Your task to perform on an android device: Clear all items from cart on costco.com. Search for "asus rog" on costco.com, select the first entry, add it to the cart, then select checkout. Image 0: 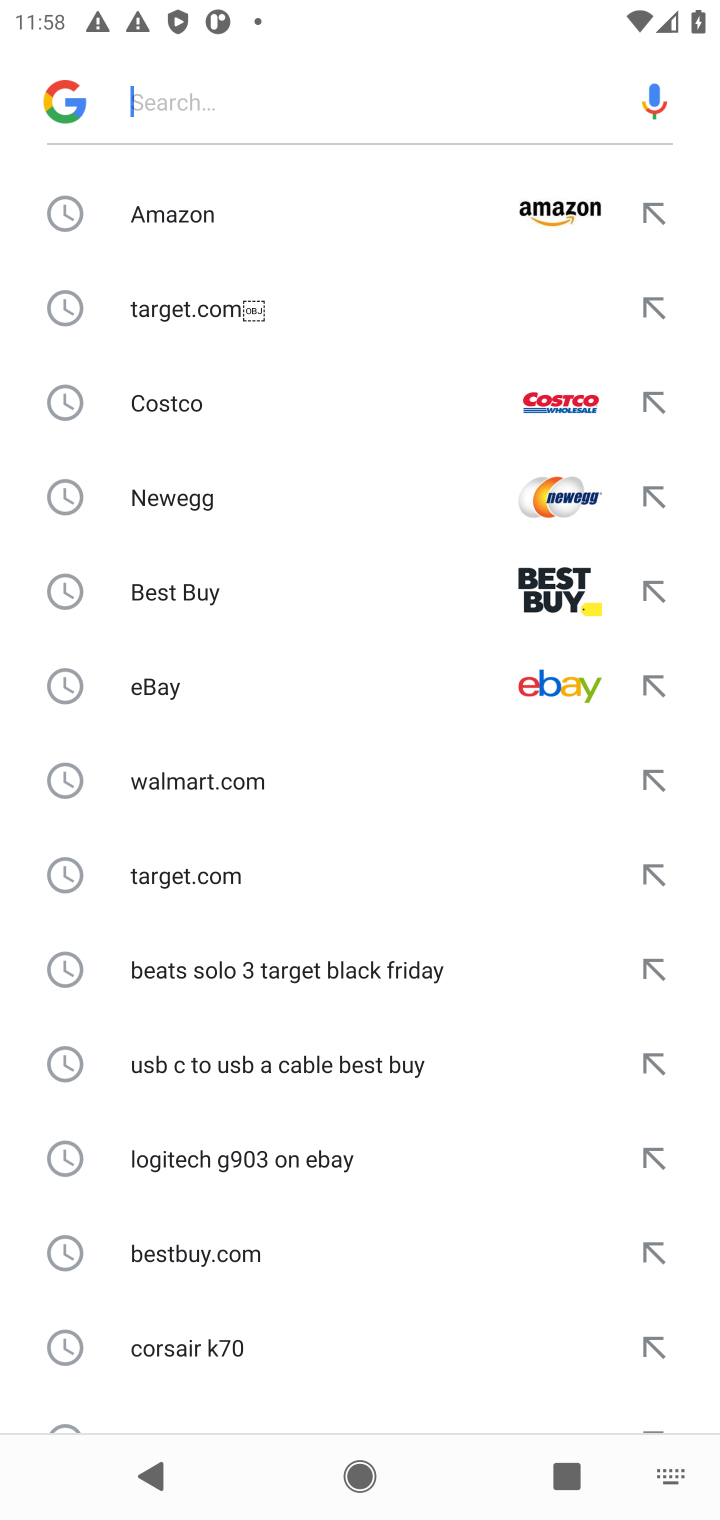
Step 0: press home button
Your task to perform on an android device: Clear all items from cart on costco.com. Search for "asus rog" on costco.com, select the first entry, add it to the cart, then select checkout. Image 1: 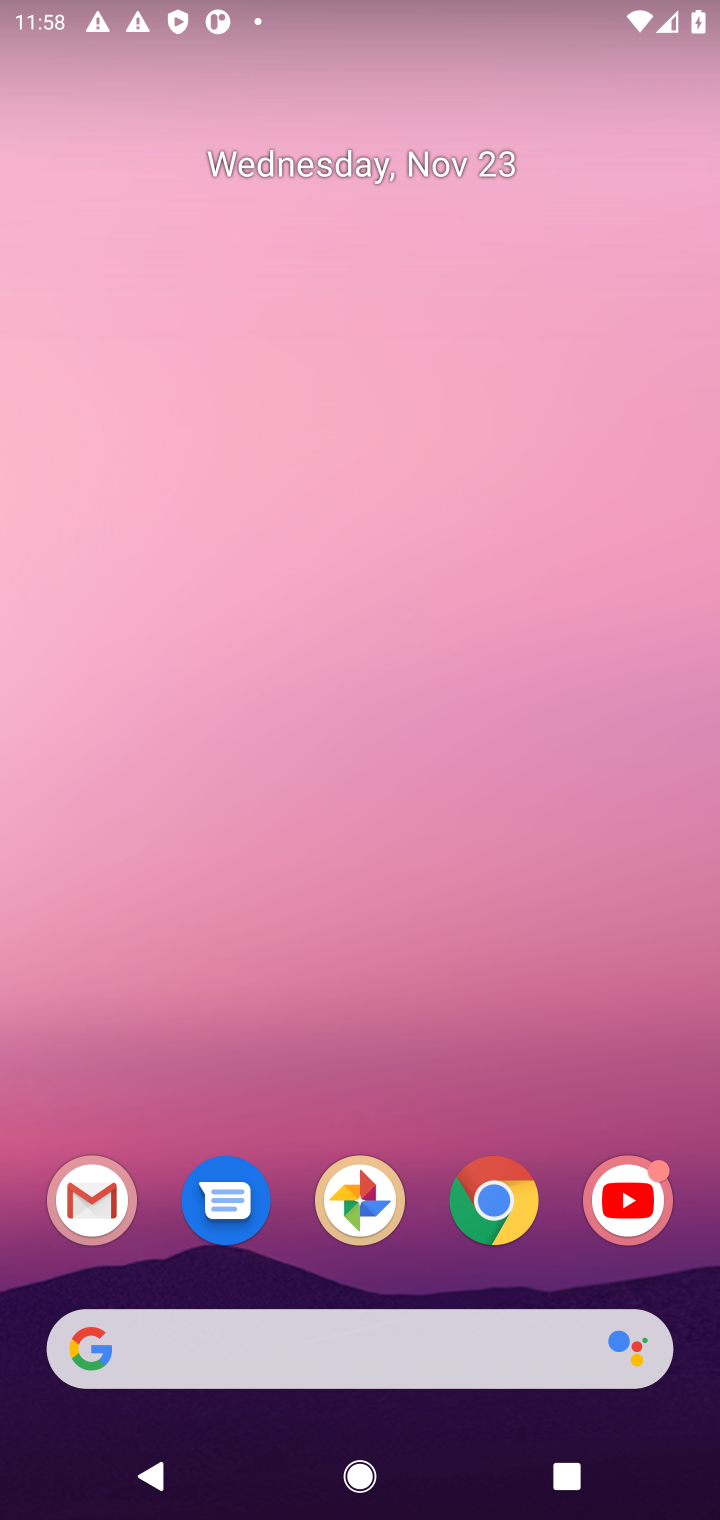
Step 1: click (394, 1363)
Your task to perform on an android device: Clear all items from cart on costco.com. Search for "asus rog" on costco.com, select the first entry, add it to the cart, then select checkout. Image 2: 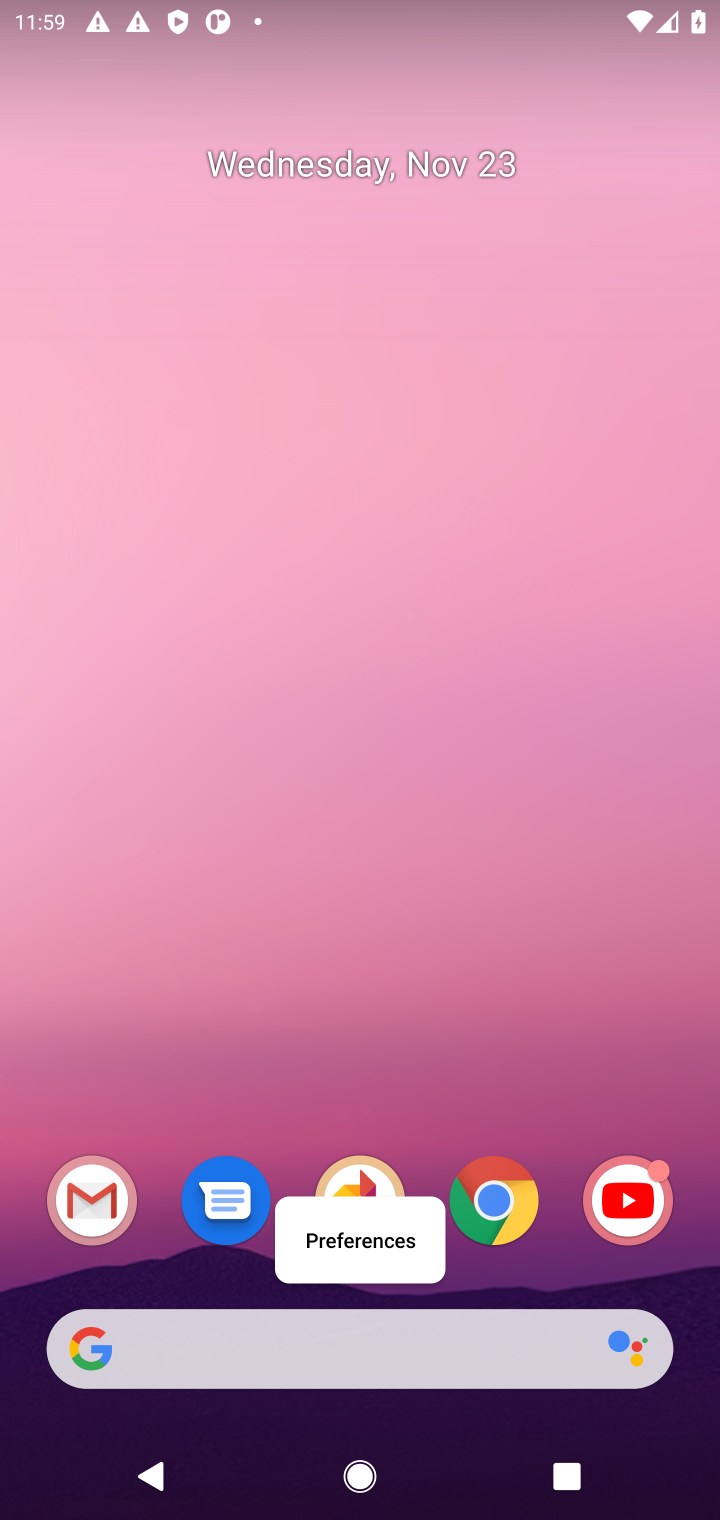
Step 2: type "costco.com"
Your task to perform on an android device: Clear all items from cart on costco.com. Search for "asus rog" on costco.com, select the first entry, add it to the cart, then select checkout. Image 3: 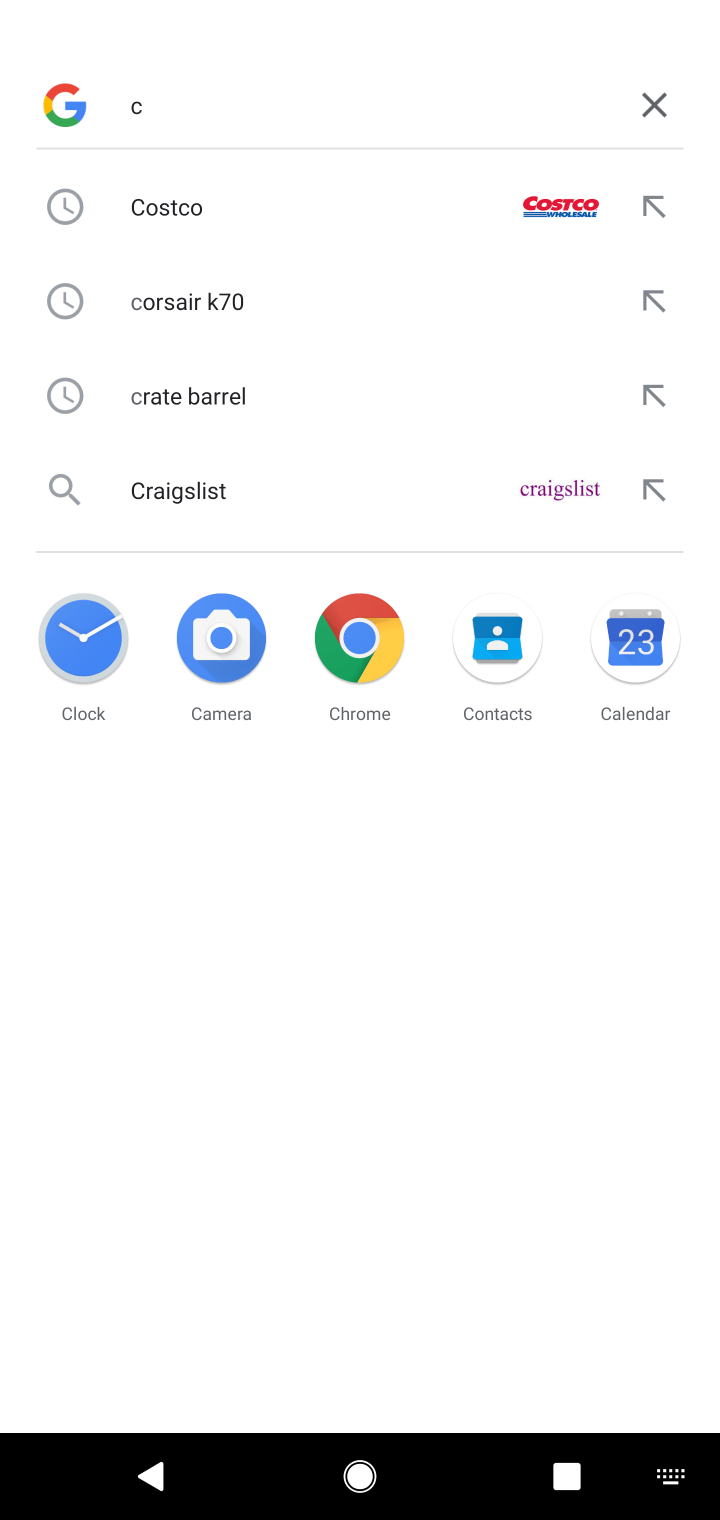
Step 3: click (239, 213)
Your task to perform on an android device: Clear all items from cart on costco.com. Search for "asus rog" on costco.com, select the first entry, add it to the cart, then select checkout. Image 4: 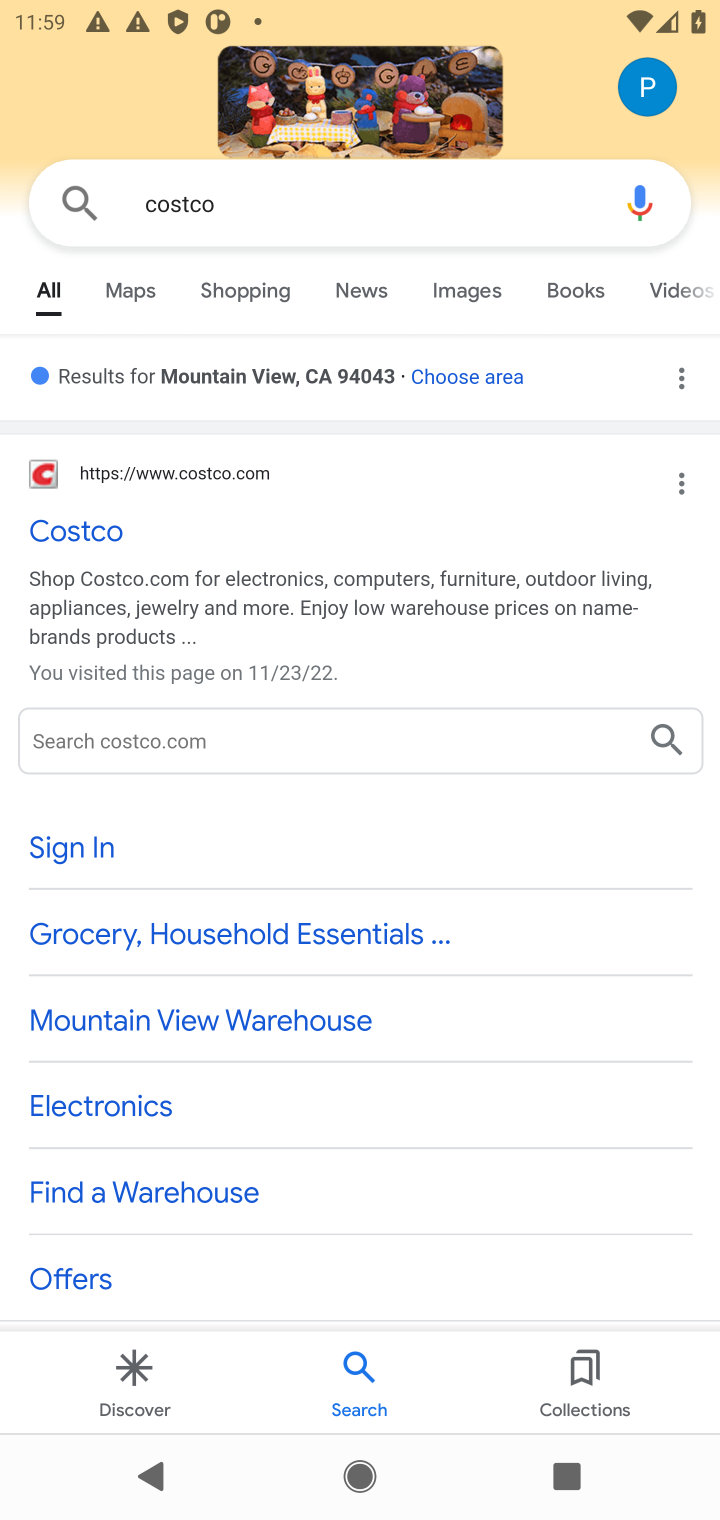
Step 4: click (107, 561)
Your task to perform on an android device: Clear all items from cart on costco.com. Search for "asus rog" on costco.com, select the first entry, add it to the cart, then select checkout. Image 5: 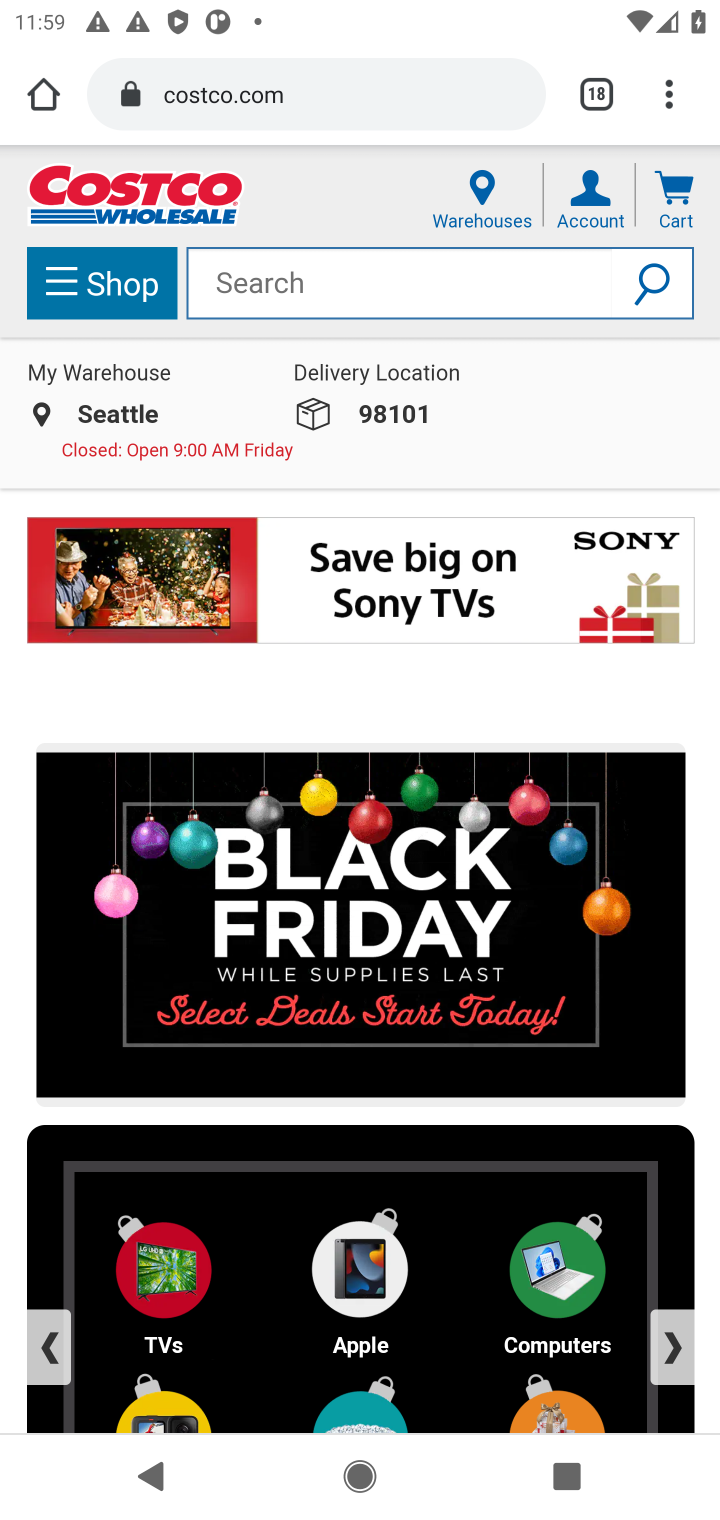
Step 5: drag from (311, 1089) to (324, 219)
Your task to perform on an android device: Clear all items from cart on costco.com. Search for "asus rog" on costco.com, select the first entry, add it to the cart, then select checkout. Image 6: 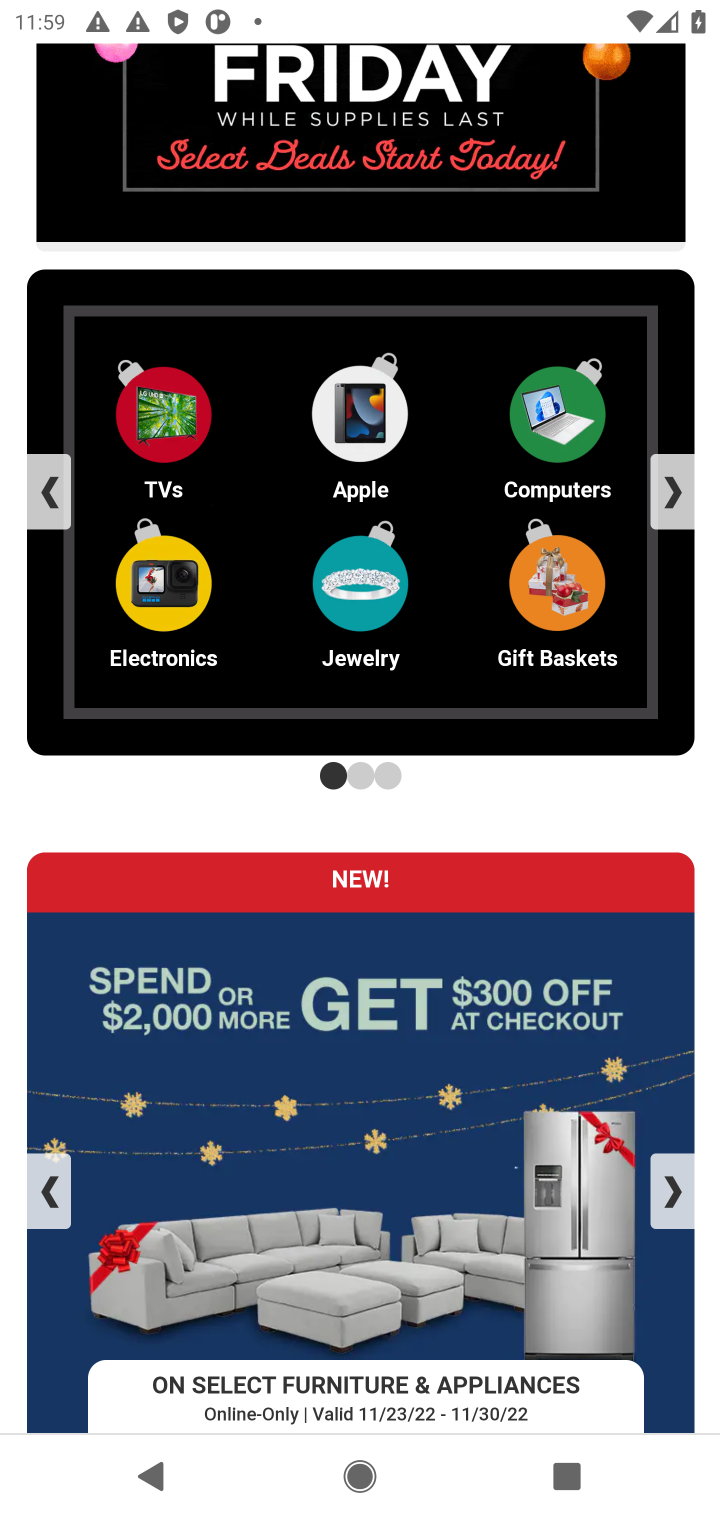
Step 6: drag from (481, 1228) to (509, 564)
Your task to perform on an android device: Clear all items from cart on costco.com. Search for "asus rog" on costco.com, select the first entry, add it to the cart, then select checkout. Image 7: 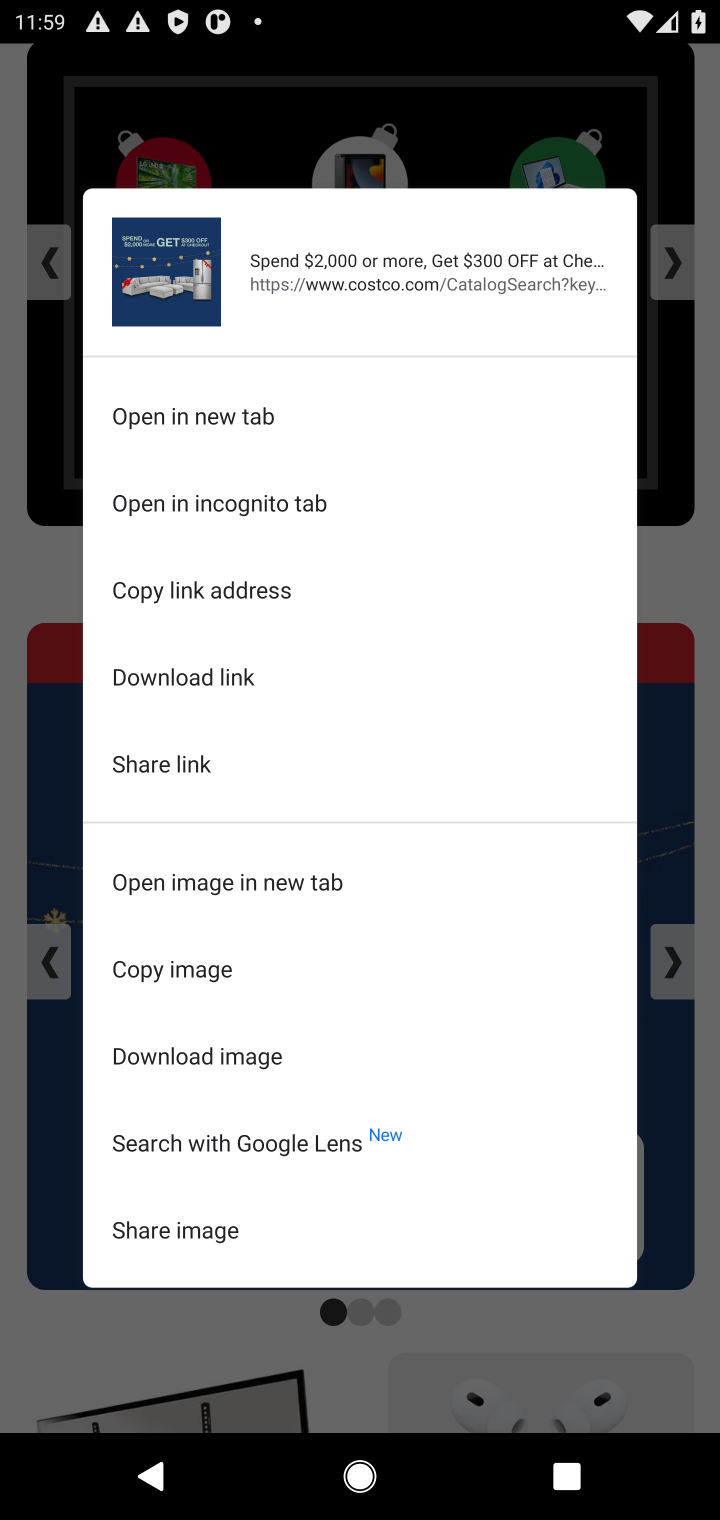
Step 7: click (475, 1360)
Your task to perform on an android device: Clear all items from cart on costco.com. Search for "asus rog" on costco.com, select the first entry, add it to the cart, then select checkout. Image 8: 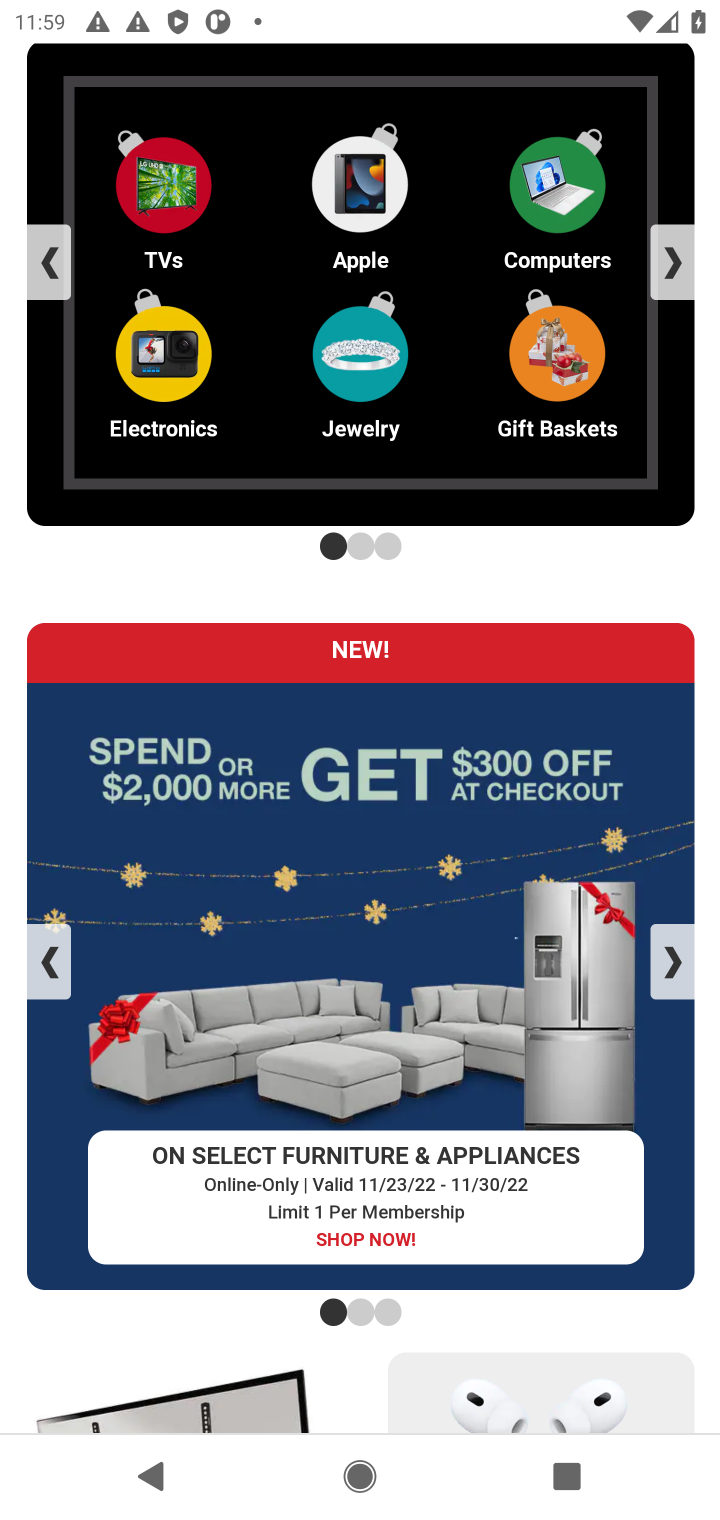
Step 8: drag from (507, 632) to (496, 1311)
Your task to perform on an android device: Clear all items from cart on costco.com. Search for "asus rog" on costco.com, select the first entry, add it to the cart, then select checkout. Image 9: 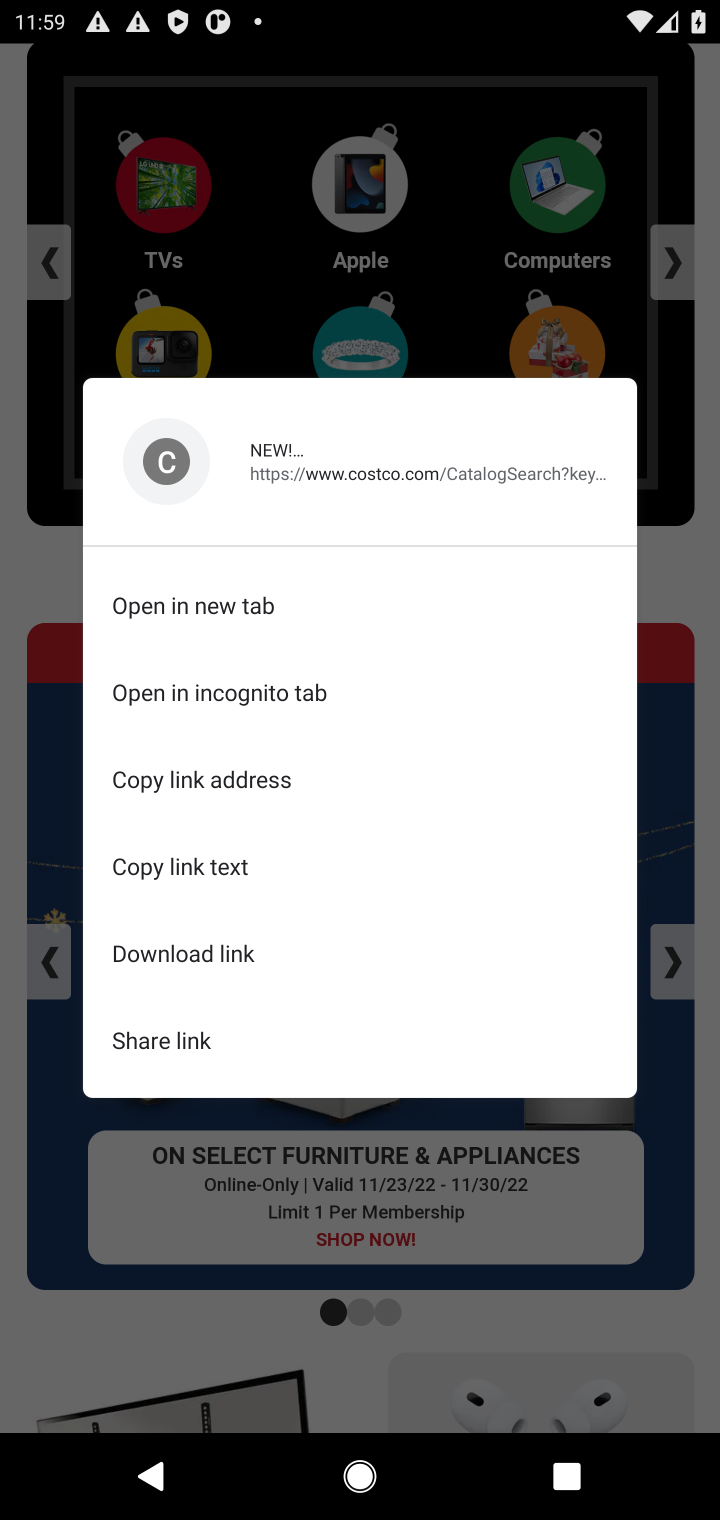
Step 9: click (673, 688)
Your task to perform on an android device: Clear all items from cart on costco.com. Search for "asus rog" on costco.com, select the first entry, add it to the cart, then select checkout. Image 10: 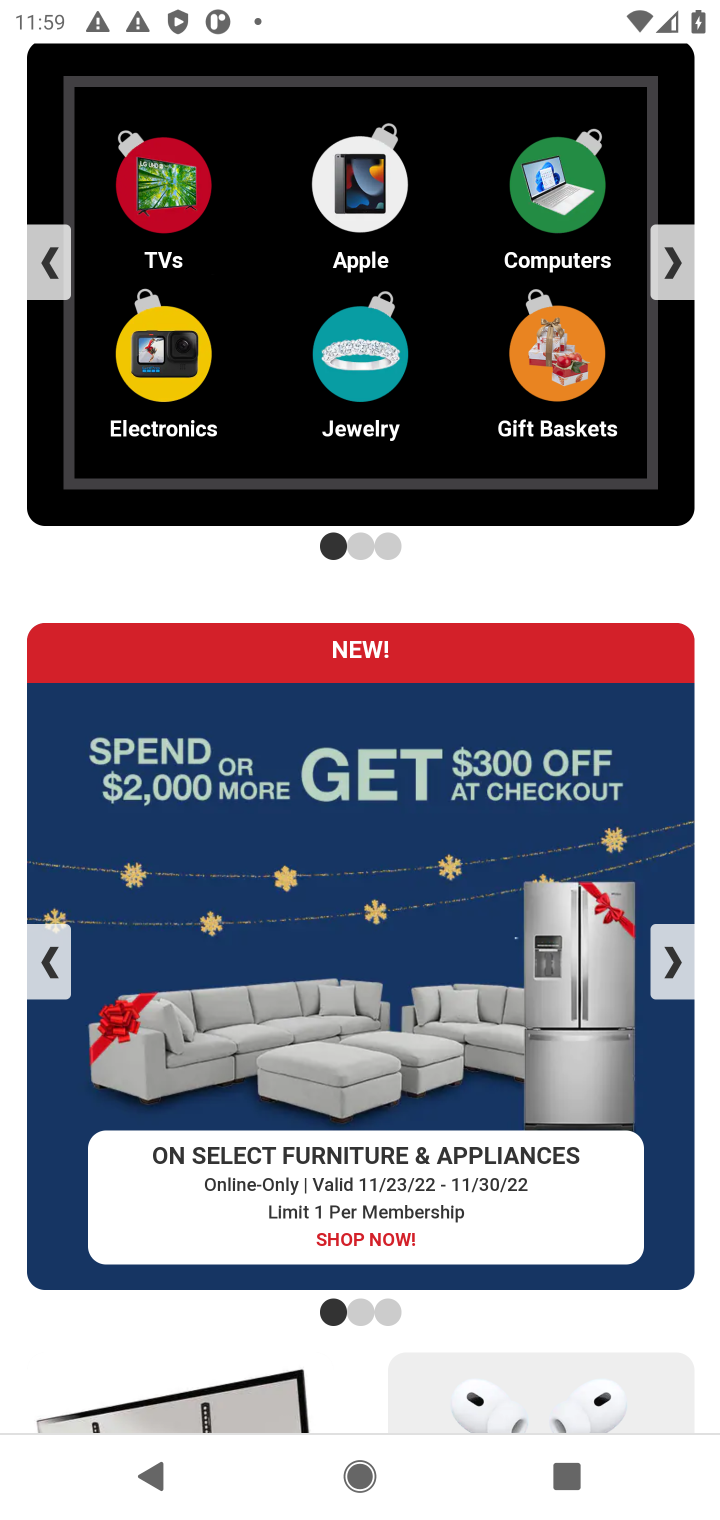
Step 10: drag from (556, 521) to (301, 1331)
Your task to perform on an android device: Clear all items from cart on costco.com. Search for "asus rog" on costco.com, select the first entry, add it to the cart, then select checkout. Image 11: 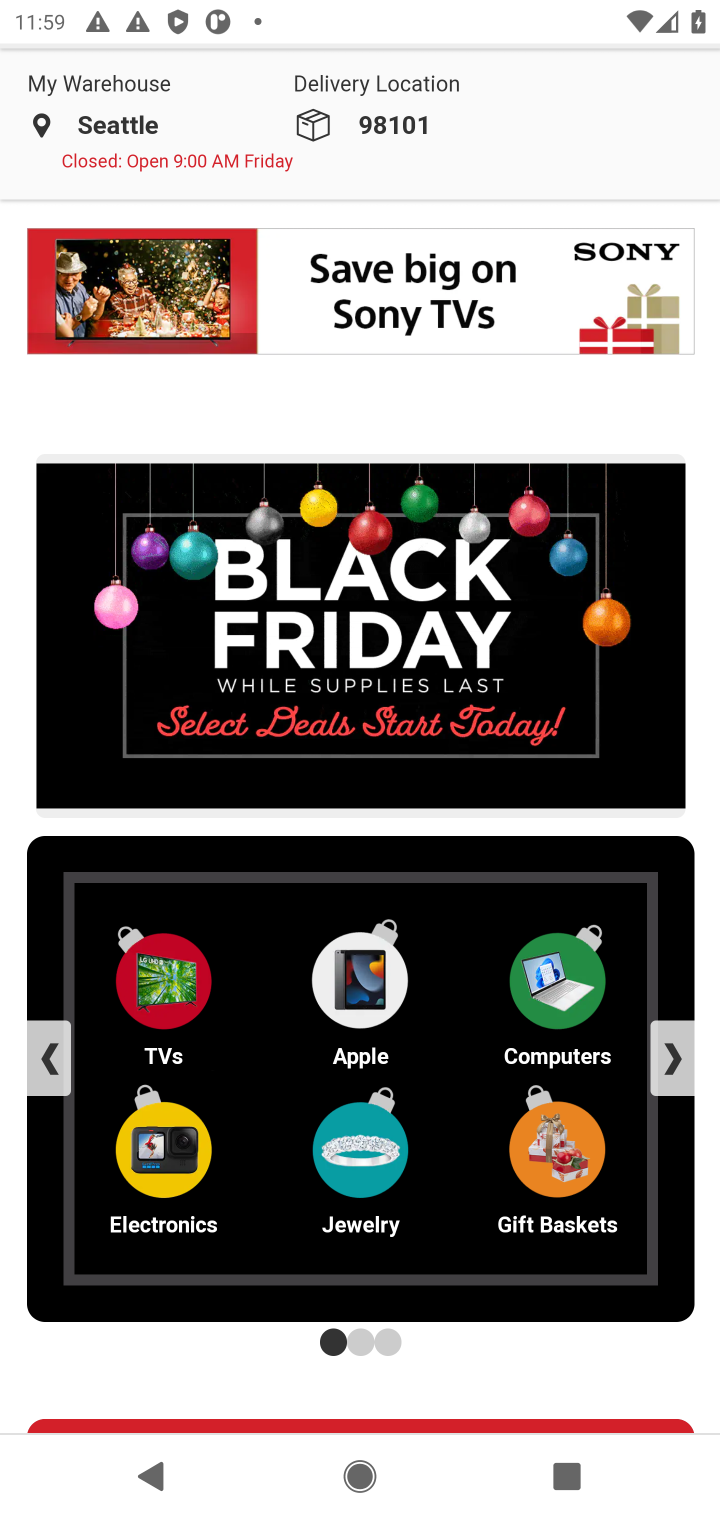
Step 11: drag from (426, 359) to (476, 1345)
Your task to perform on an android device: Clear all items from cart on costco.com. Search for "asus rog" on costco.com, select the first entry, add it to the cart, then select checkout. Image 12: 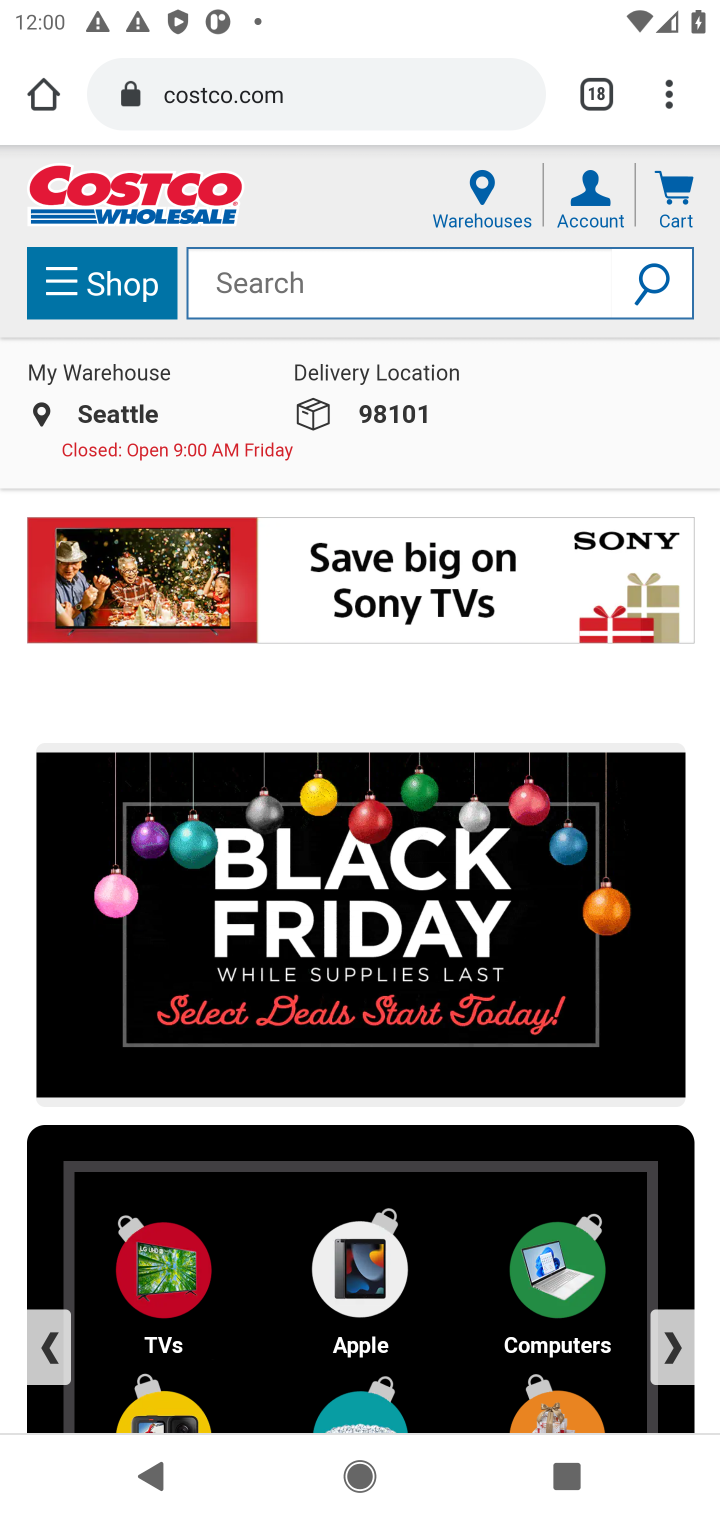
Step 12: click (333, 273)
Your task to perform on an android device: Clear all items from cart on costco.com. Search for "asus rog" on costco.com, select the first entry, add it to the cart, then select checkout. Image 13: 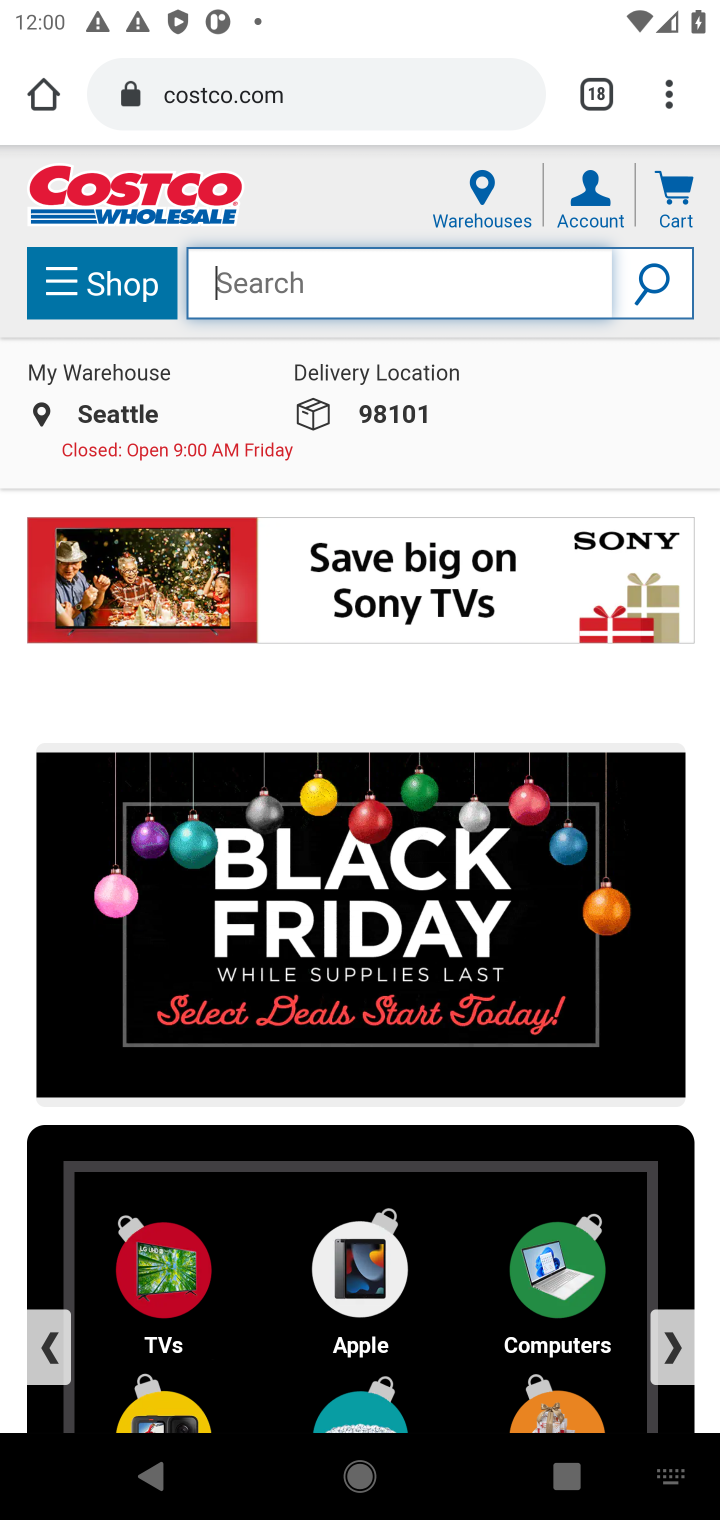
Step 13: type "asus rog"
Your task to perform on an android device: Clear all items from cart on costco.com. Search for "asus rog" on costco.com, select the first entry, add it to the cart, then select checkout. Image 14: 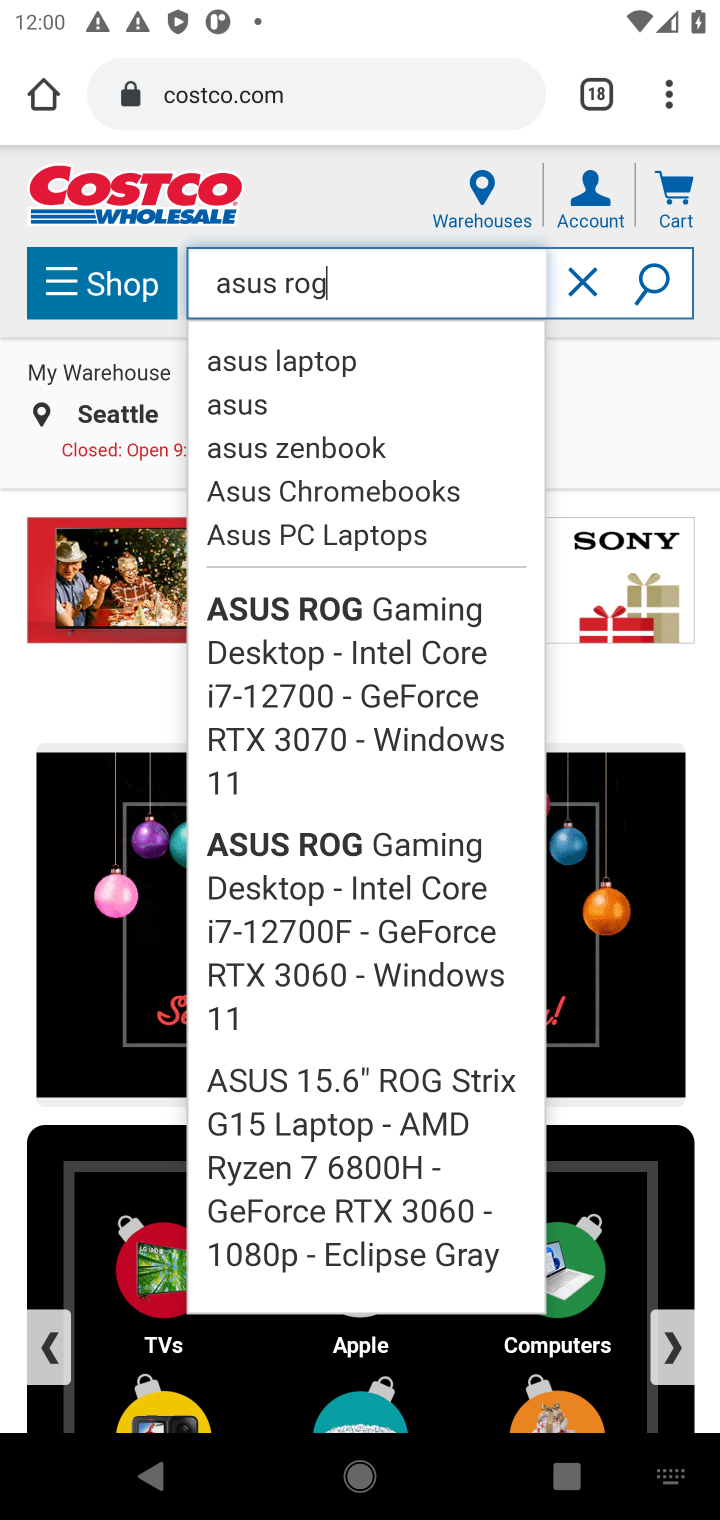
Step 14: click (641, 296)
Your task to perform on an android device: Clear all items from cart on costco.com. Search for "asus rog" on costco.com, select the first entry, add it to the cart, then select checkout. Image 15: 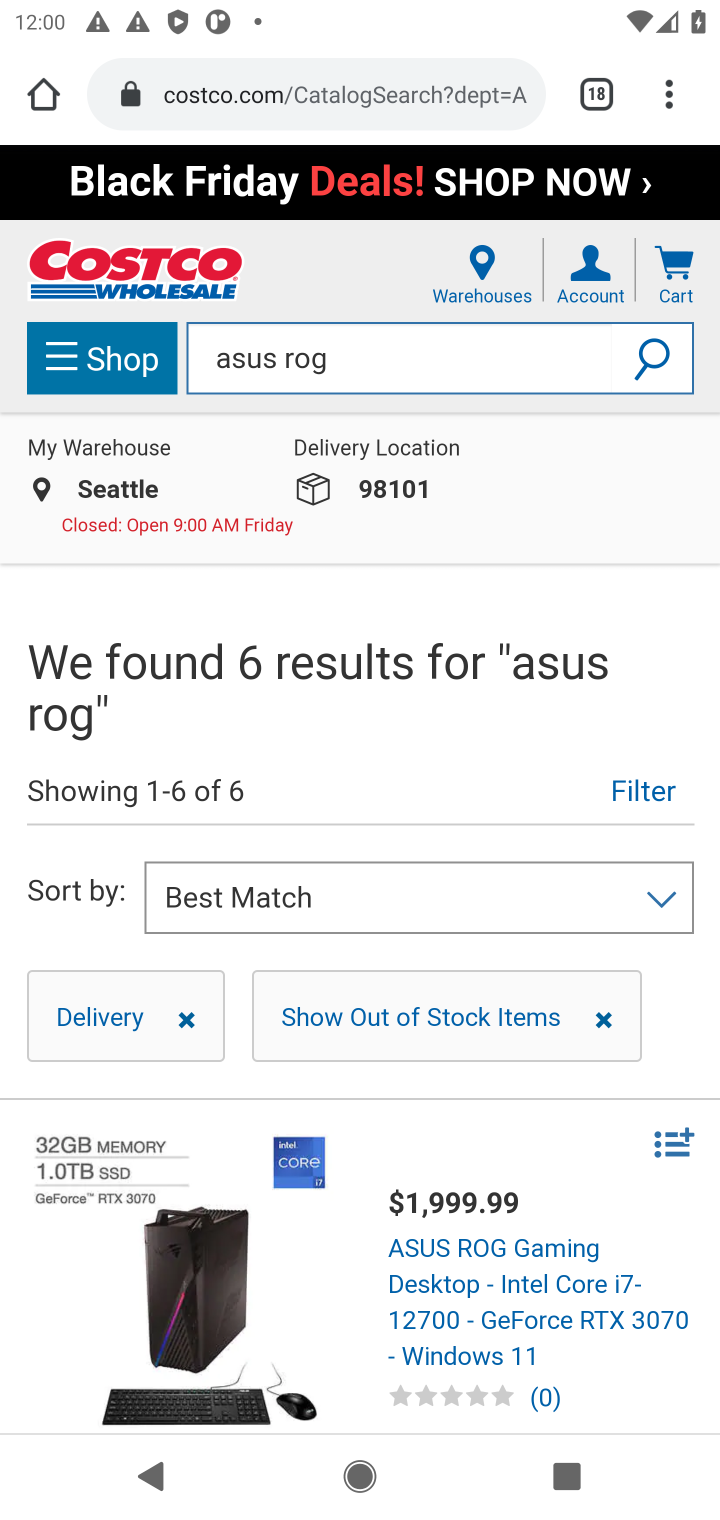
Step 15: click (491, 1234)
Your task to perform on an android device: Clear all items from cart on costco.com. Search for "asus rog" on costco.com, select the first entry, add it to the cart, then select checkout. Image 16: 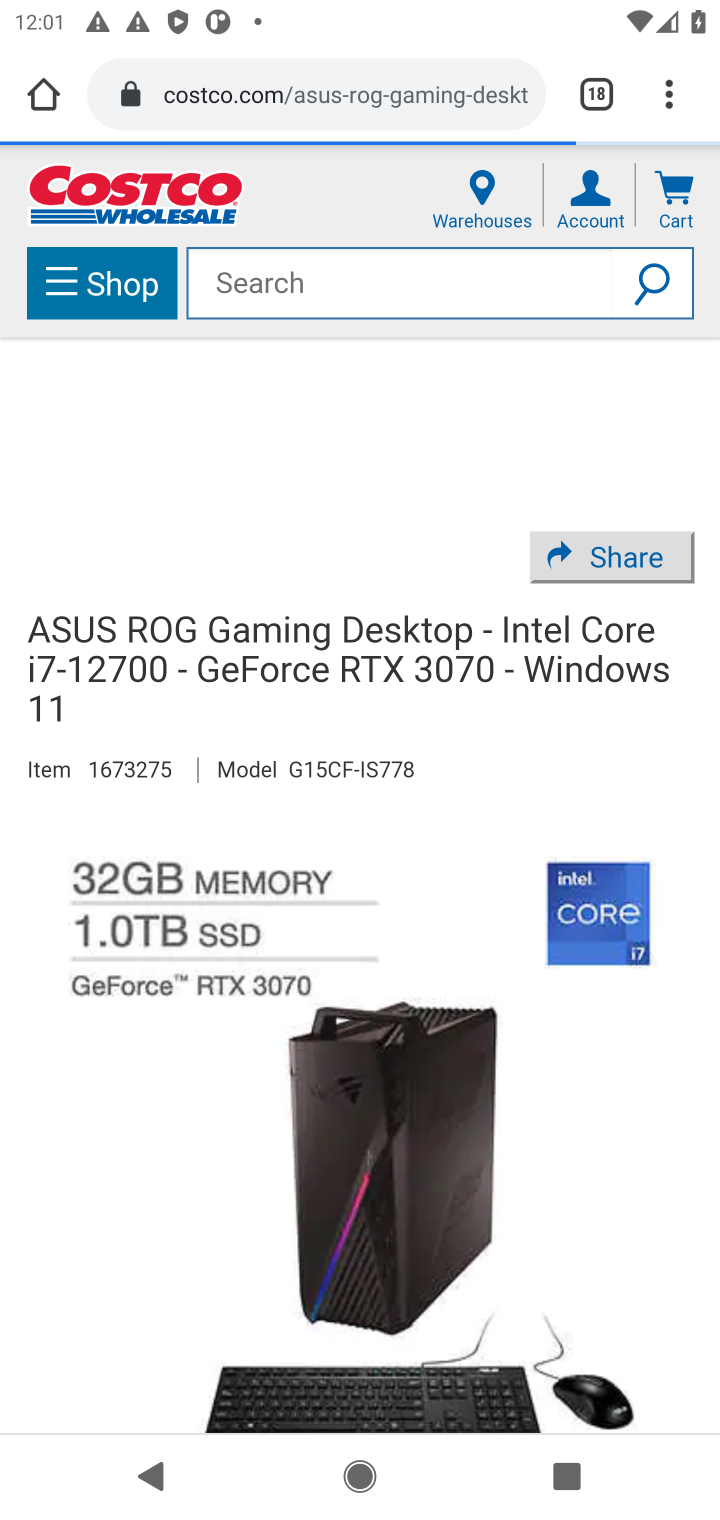
Step 16: drag from (491, 1234) to (320, 510)
Your task to perform on an android device: Clear all items from cart on costco.com. Search for "asus rog" on costco.com, select the first entry, add it to the cart, then select checkout. Image 17: 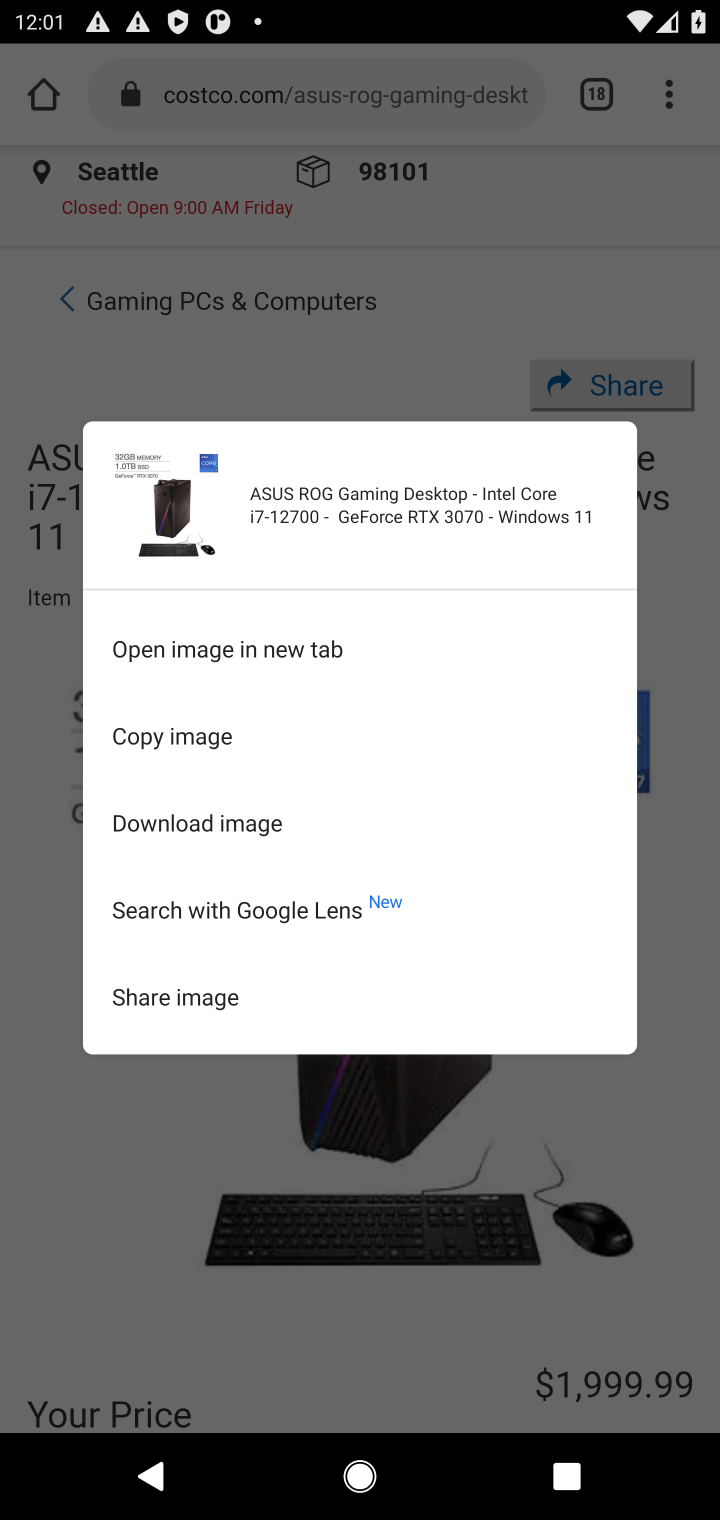
Step 17: click (262, 1125)
Your task to perform on an android device: Clear all items from cart on costco.com. Search for "asus rog" on costco.com, select the first entry, add it to the cart, then select checkout. Image 18: 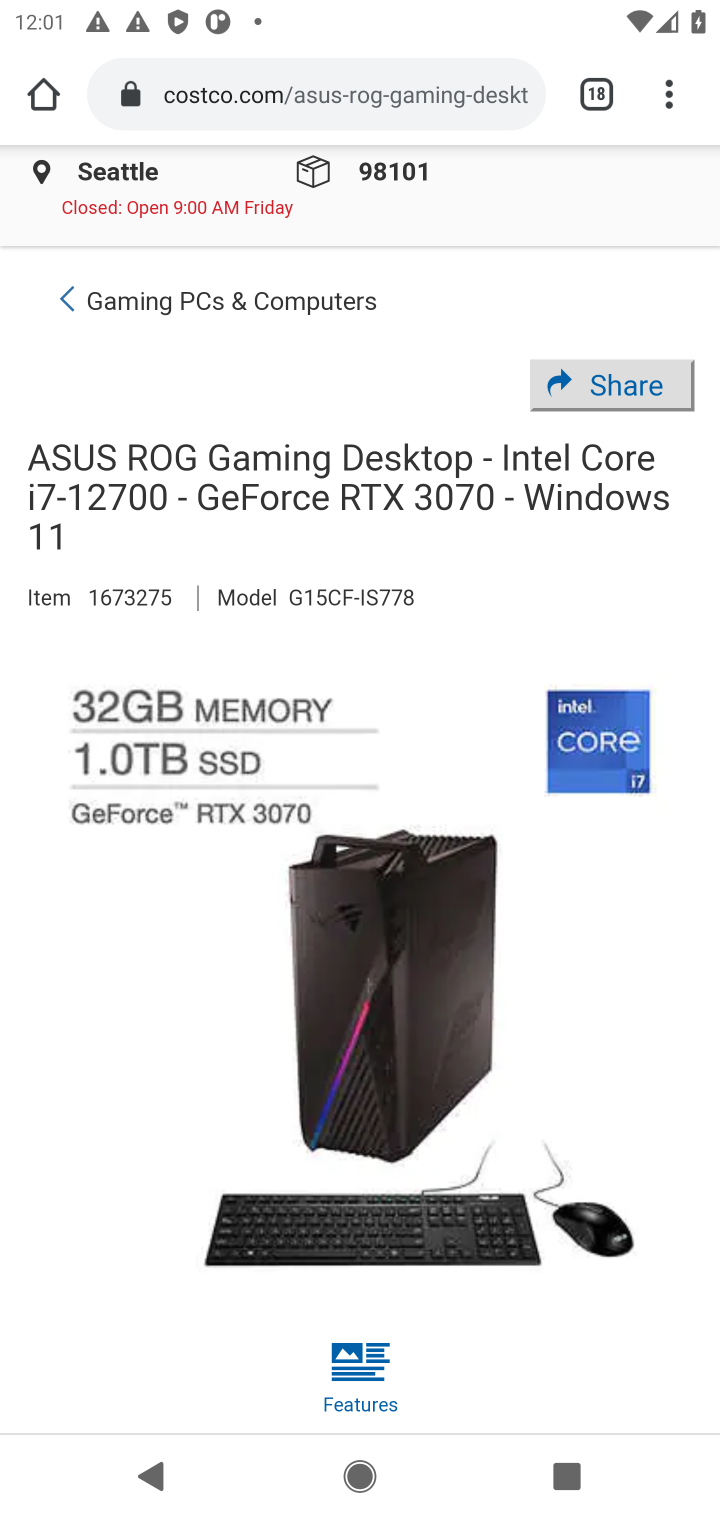
Step 18: drag from (164, 1197) to (148, 608)
Your task to perform on an android device: Clear all items from cart on costco.com. Search for "asus rog" on costco.com, select the first entry, add it to the cart, then select checkout. Image 19: 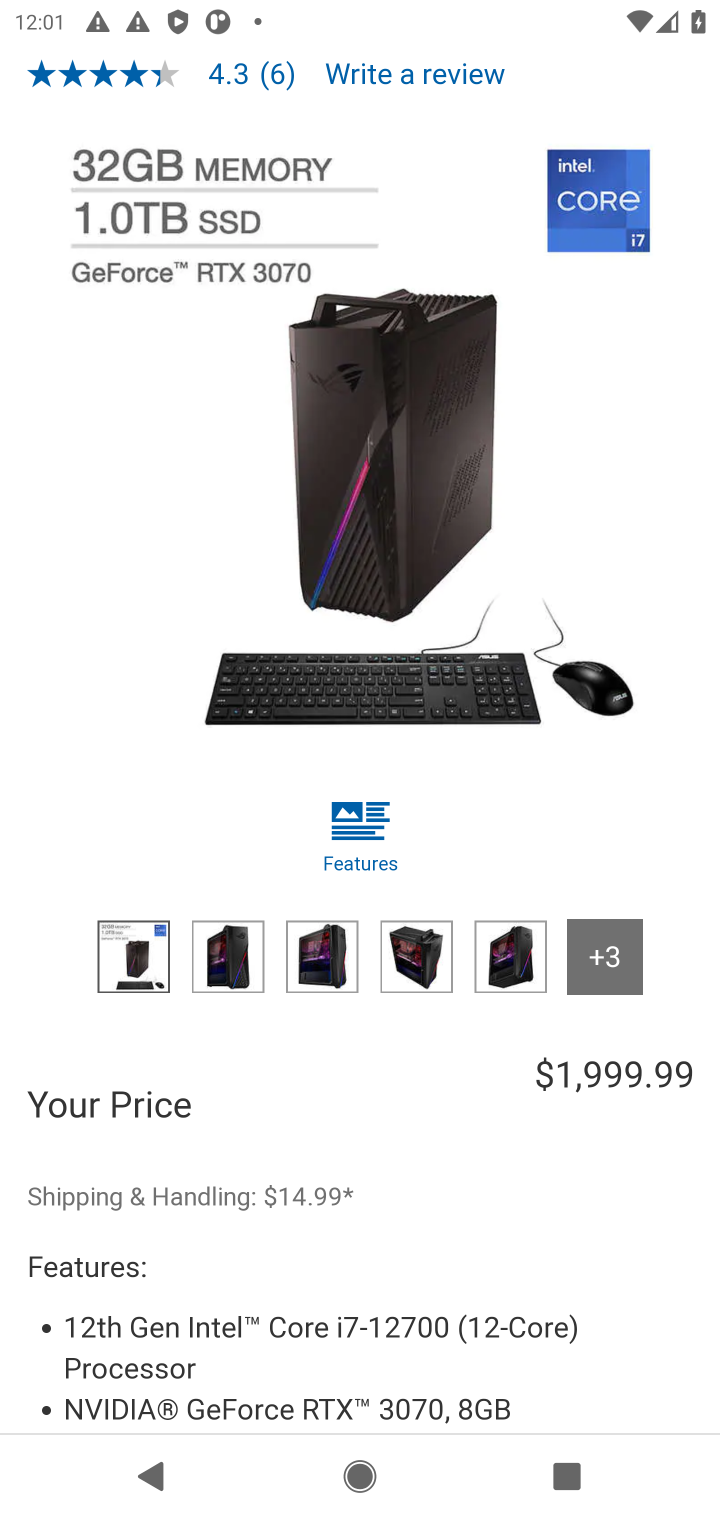
Step 19: drag from (384, 1222) to (442, 405)
Your task to perform on an android device: Clear all items from cart on costco.com. Search for "asus rog" on costco.com, select the first entry, add it to the cart, then select checkout. Image 20: 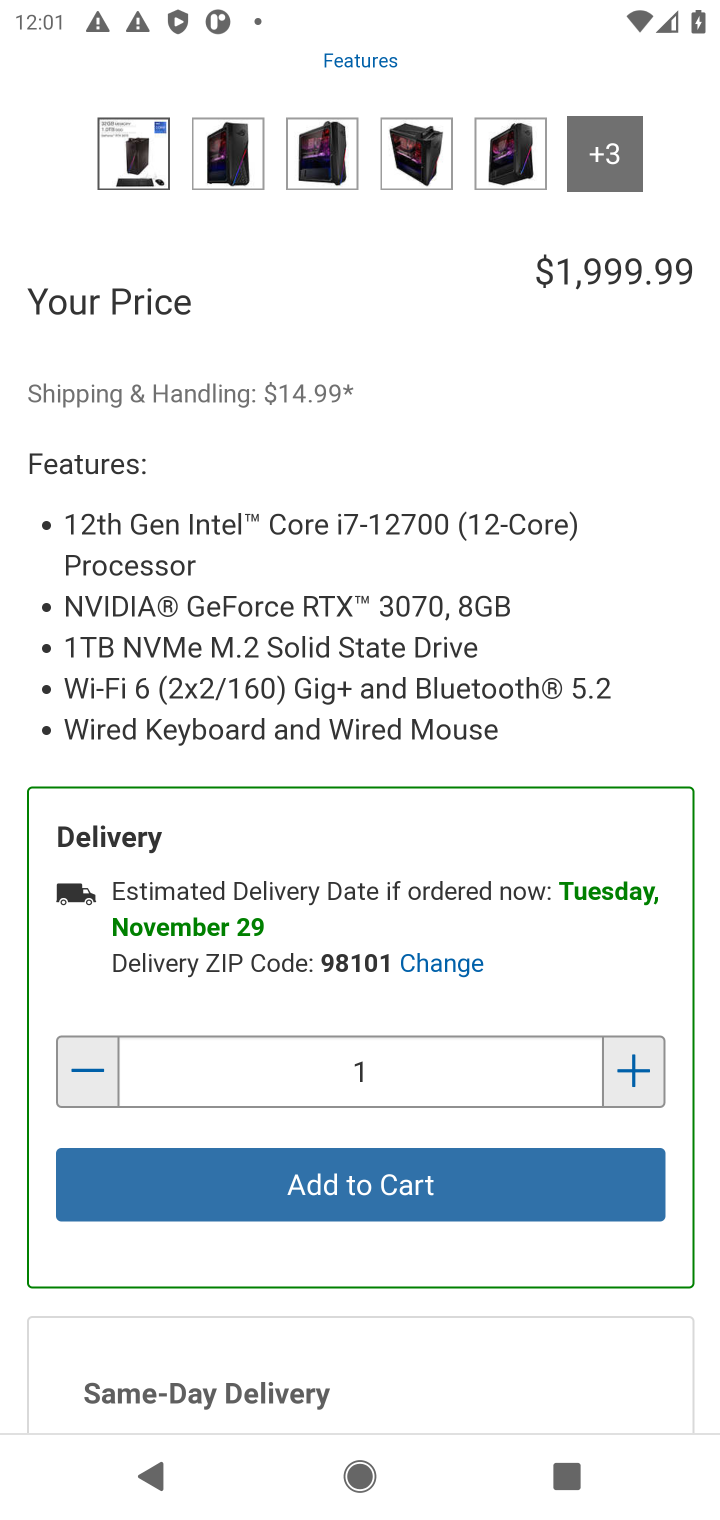
Step 20: click (424, 1201)
Your task to perform on an android device: Clear all items from cart on costco.com. Search for "asus rog" on costco.com, select the first entry, add it to the cart, then select checkout. Image 21: 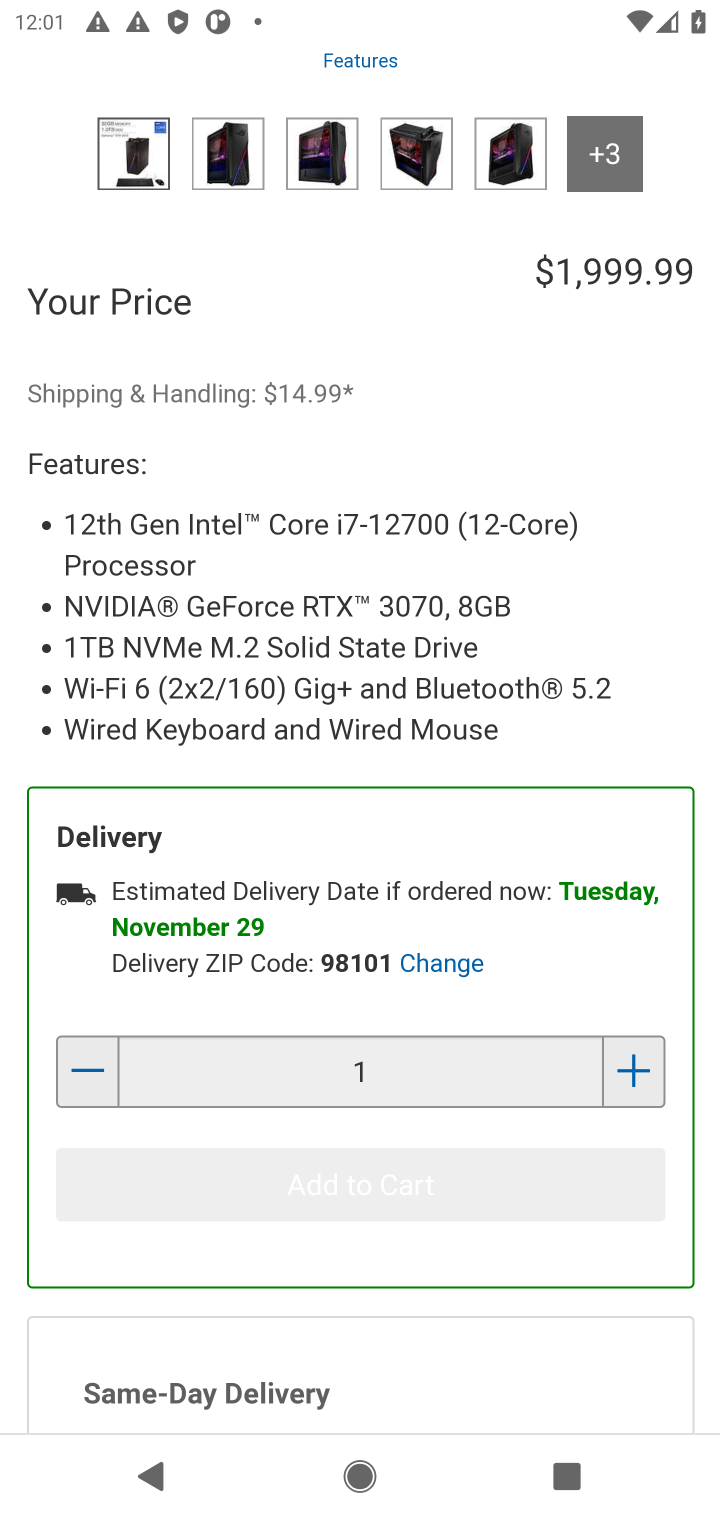
Step 21: task complete